Your task to perform on an android device: Show me popular games on the Play Store Image 0: 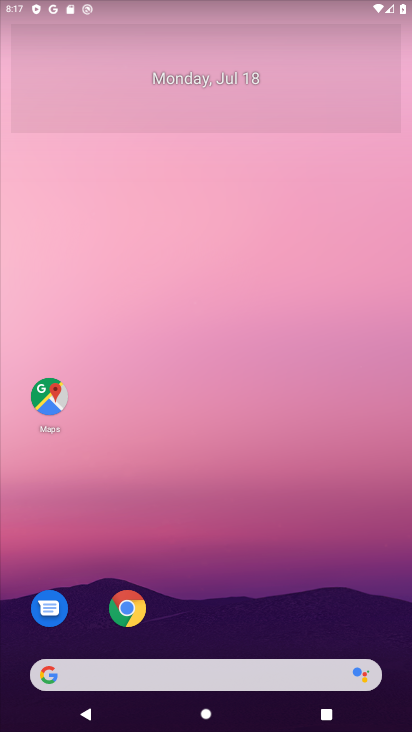
Step 0: drag from (137, 383) to (182, 193)
Your task to perform on an android device: Show me popular games on the Play Store Image 1: 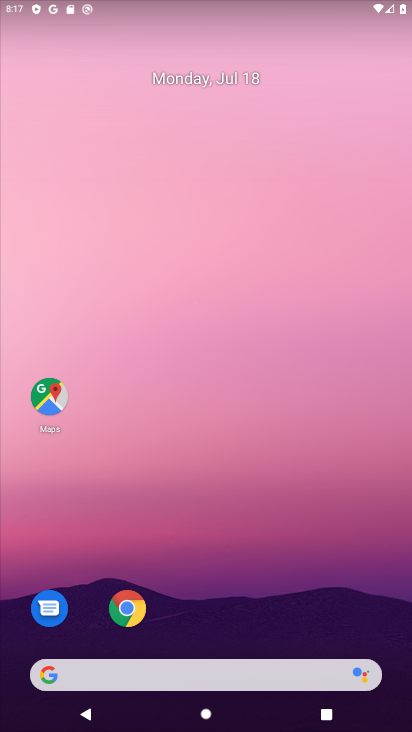
Step 1: drag from (24, 699) to (157, 141)
Your task to perform on an android device: Show me popular games on the Play Store Image 2: 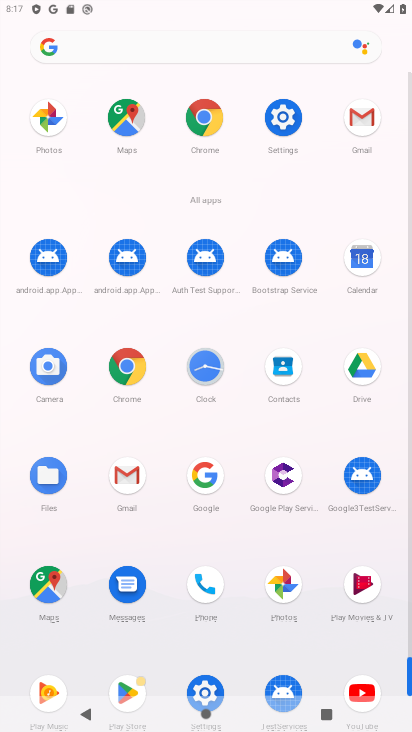
Step 2: click (264, 494)
Your task to perform on an android device: Show me popular games on the Play Store Image 3: 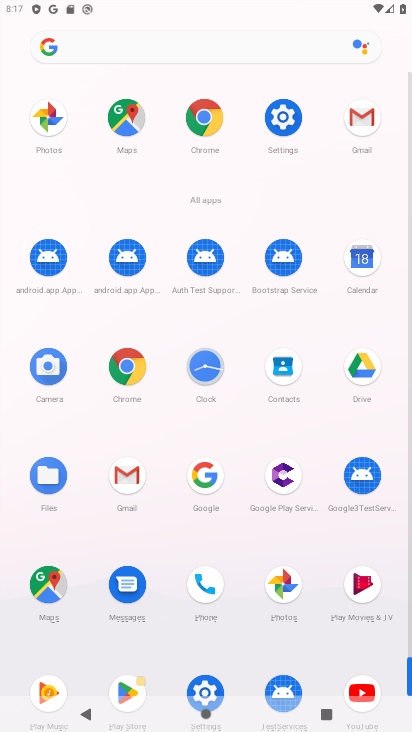
Step 3: drag from (236, 644) to (233, 246)
Your task to perform on an android device: Show me popular games on the Play Store Image 4: 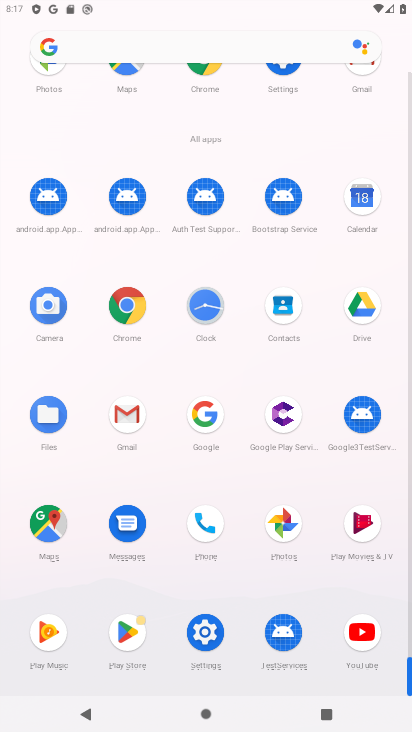
Step 4: click (131, 620)
Your task to perform on an android device: Show me popular games on the Play Store Image 5: 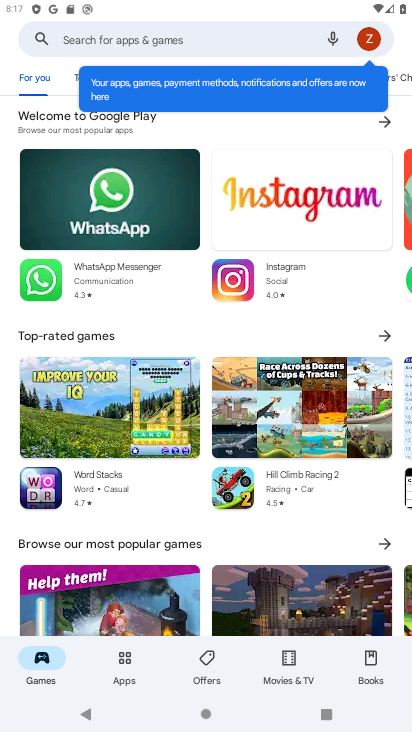
Step 5: click (81, 31)
Your task to perform on an android device: Show me popular games on the Play Store Image 6: 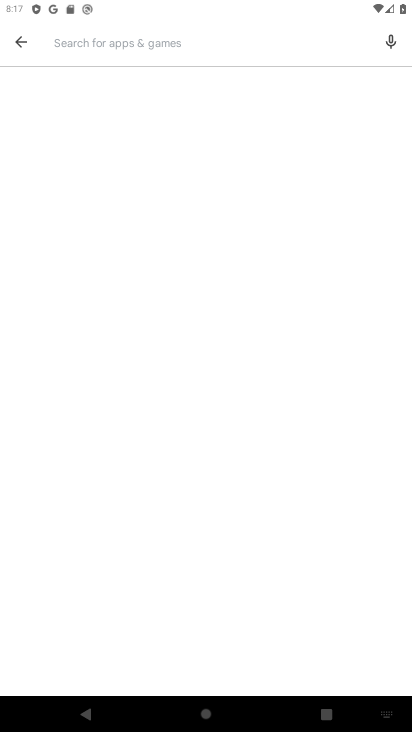
Step 6: type "popular games"
Your task to perform on an android device: Show me popular games on the Play Store Image 7: 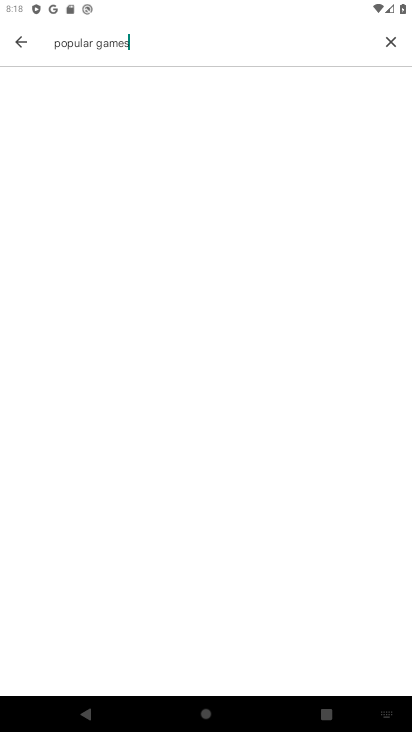
Step 7: type ""
Your task to perform on an android device: Show me popular games on the Play Store Image 8: 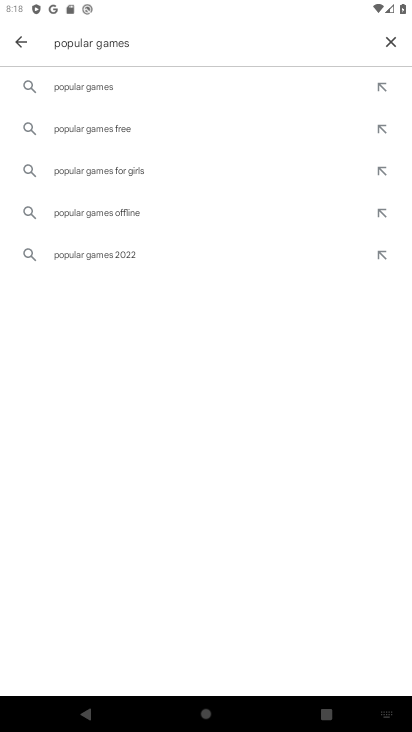
Step 8: click (106, 79)
Your task to perform on an android device: Show me popular games on the Play Store Image 9: 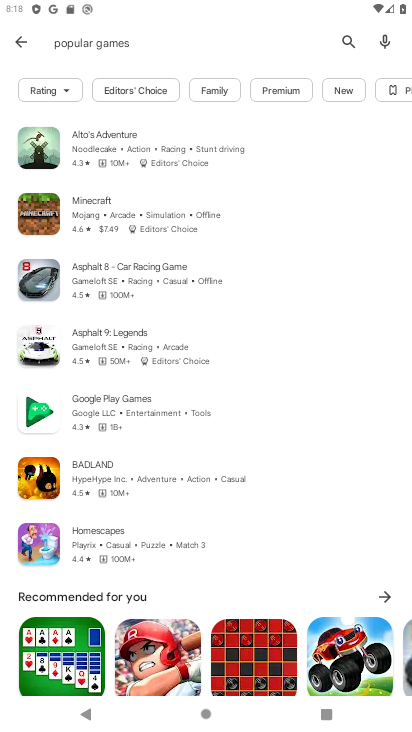
Step 9: task complete